Your task to perform on an android device: snooze an email in the gmail app Image 0: 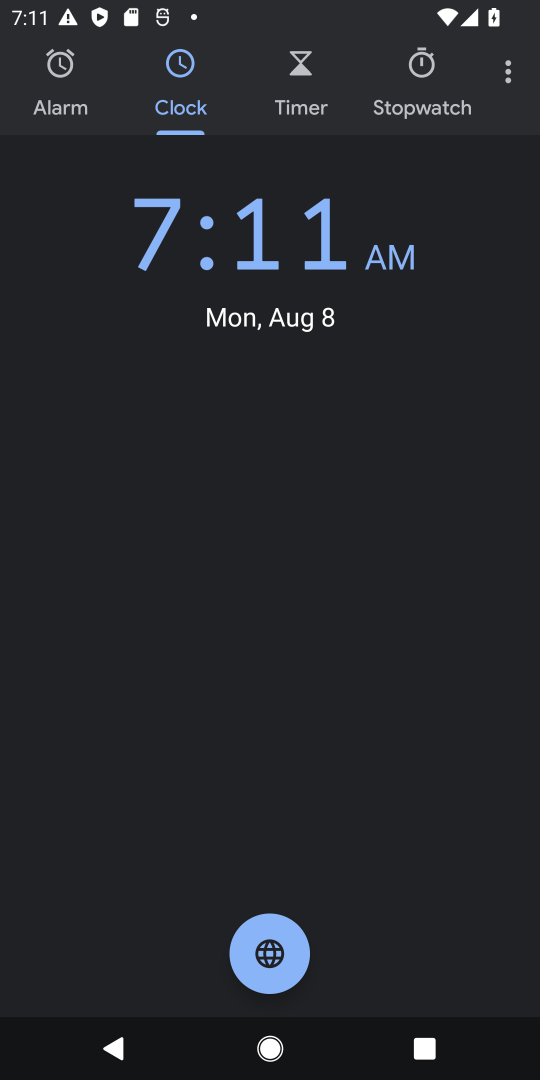
Step 0: press home button
Your task to perform on an android device: snooze an email in the gmail app Image 1: 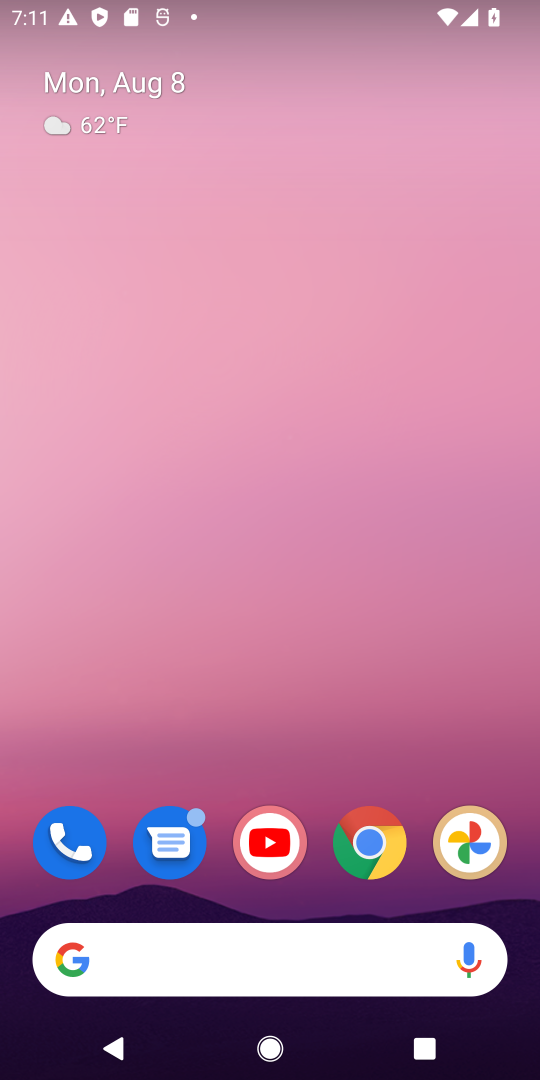
Step 1: drag from (315, 536) to (199, 6)
Your task to perform on an android device: snooze an email in the gmail app Image 2: 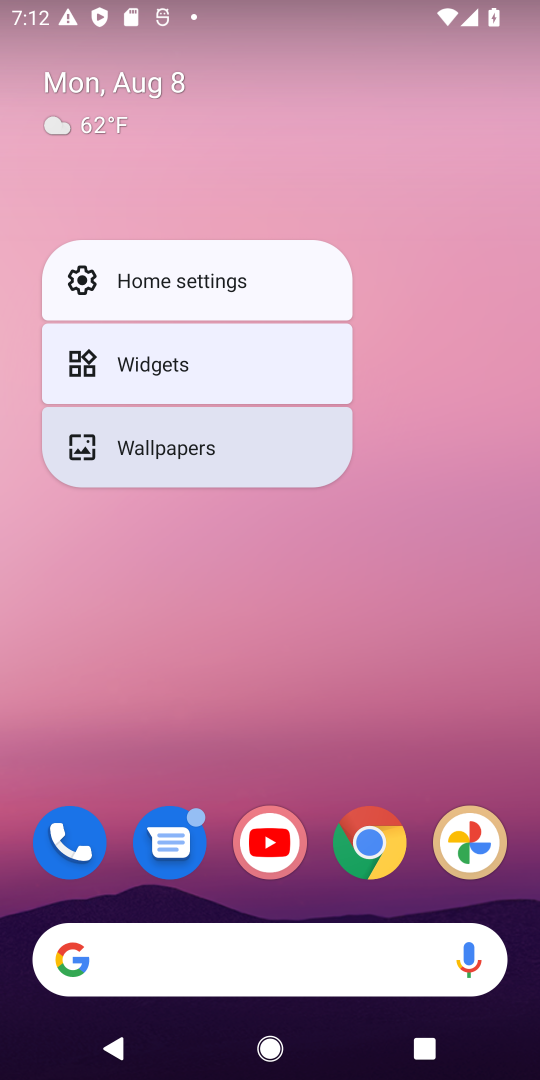
Step 2: click (338, 574)
Your task to perform on an android device: snooze an email in the gmail app Image 3: 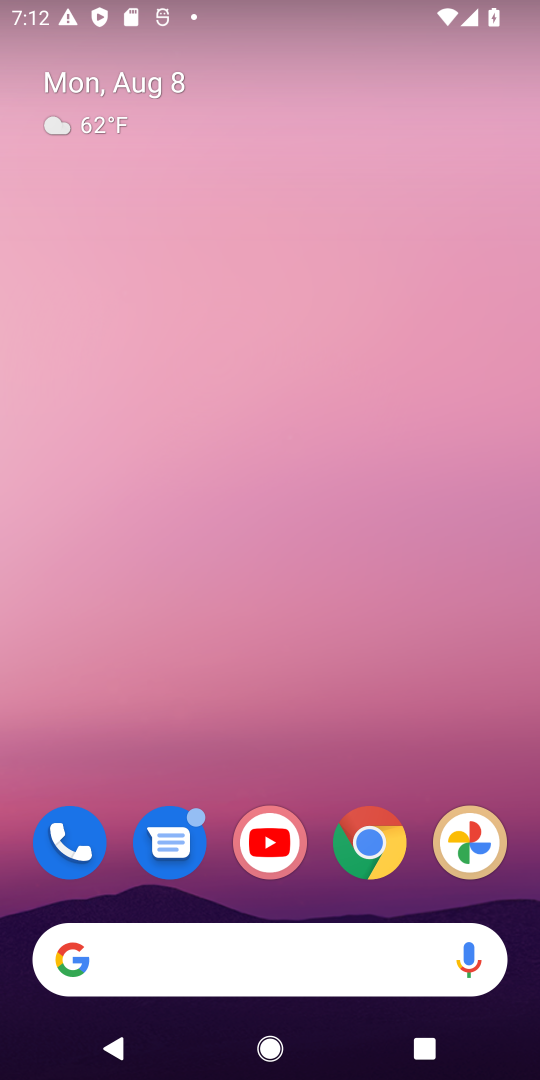
Step 3: click (338, 574)
Your task to perform on an android device: snooze an email in the gmail app Image 4: 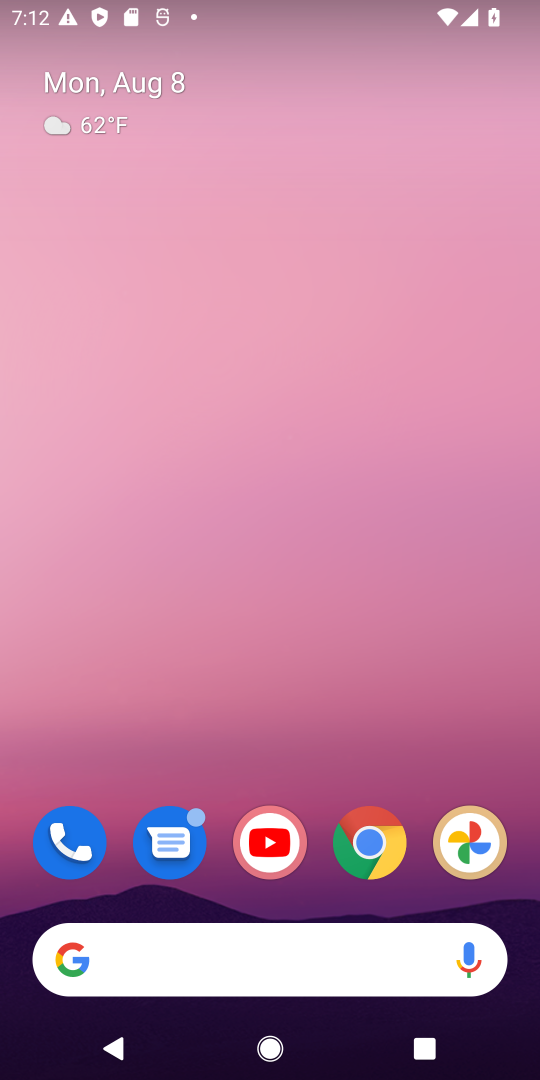
Step 4: drag from (349, 701) to (220, 1)
Your task to perform on an android device: snooze an email in the gmail app Image 5: 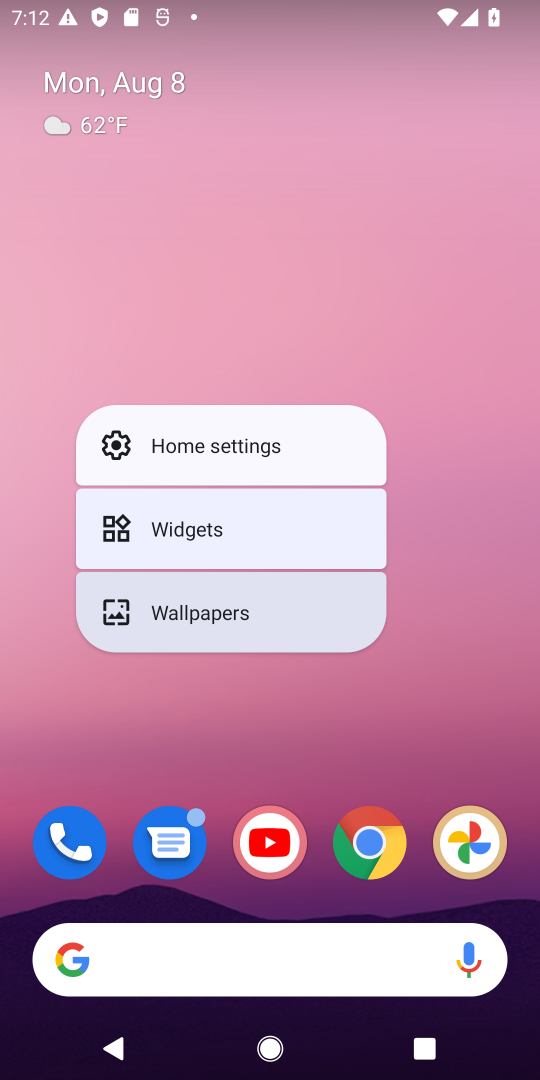
Step 5: drag from (334, 716) to (335, 0)
Your task to perform on an android device: snooze an email in the gmail app Image 6: 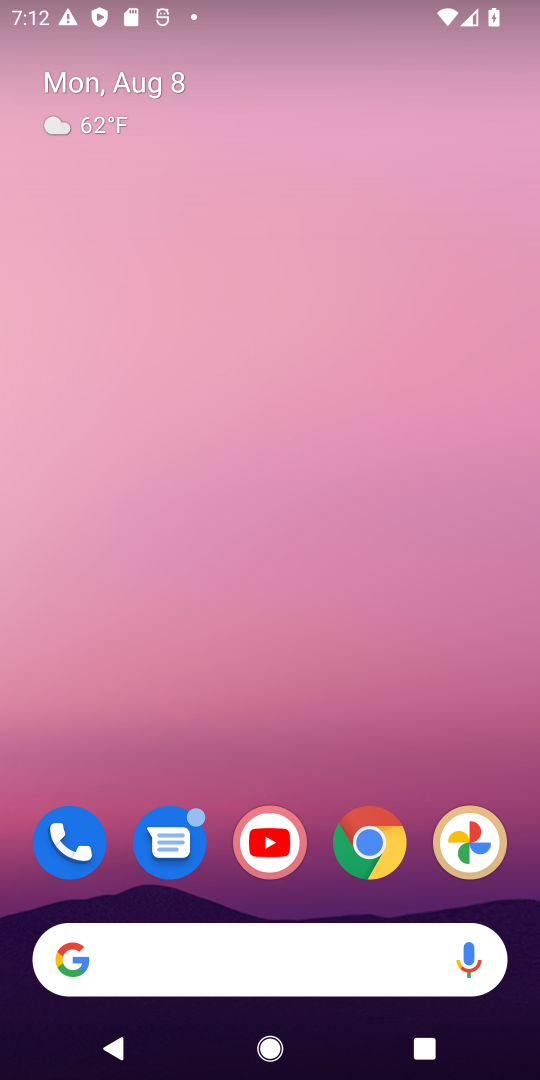
Step 6: drag from (308, 725) to (384, 14)
Your task to perform on an android device: snooze an email in the gmail app Image 7: 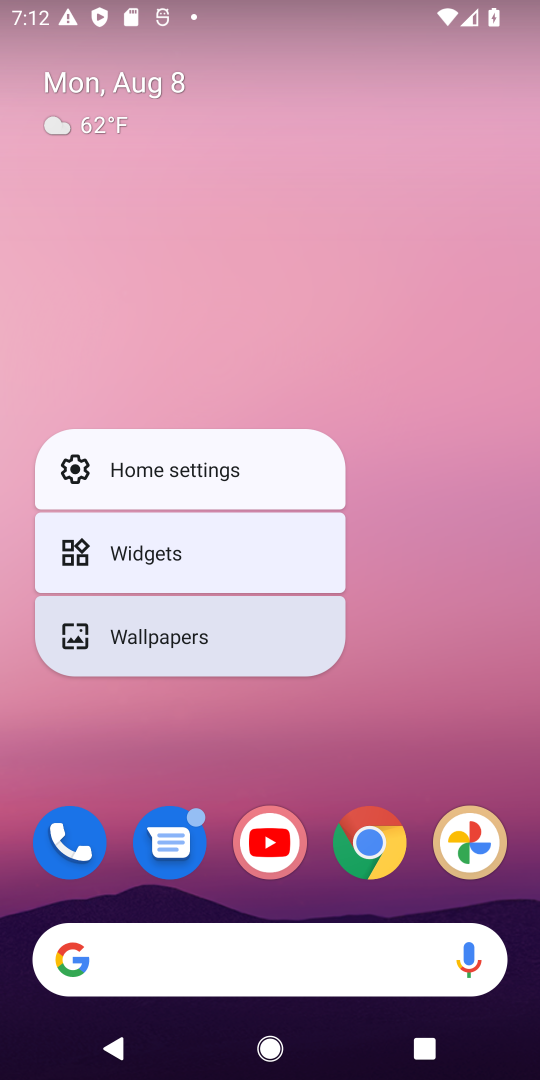
Step 7: drag from (387, 732) to (406, 66)
Your task to perform on an android device: snooze an email in the gmail app Image 8: 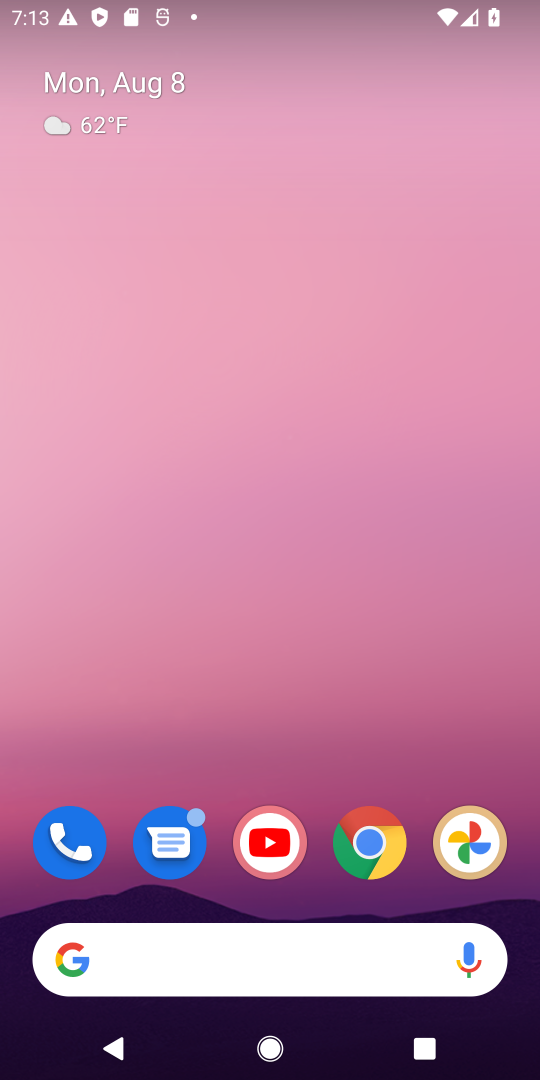
Step 8: drag from (405, 484) to (416, 1)
Your task to perform on an android device: snooze an email in the gmail app Image 9: 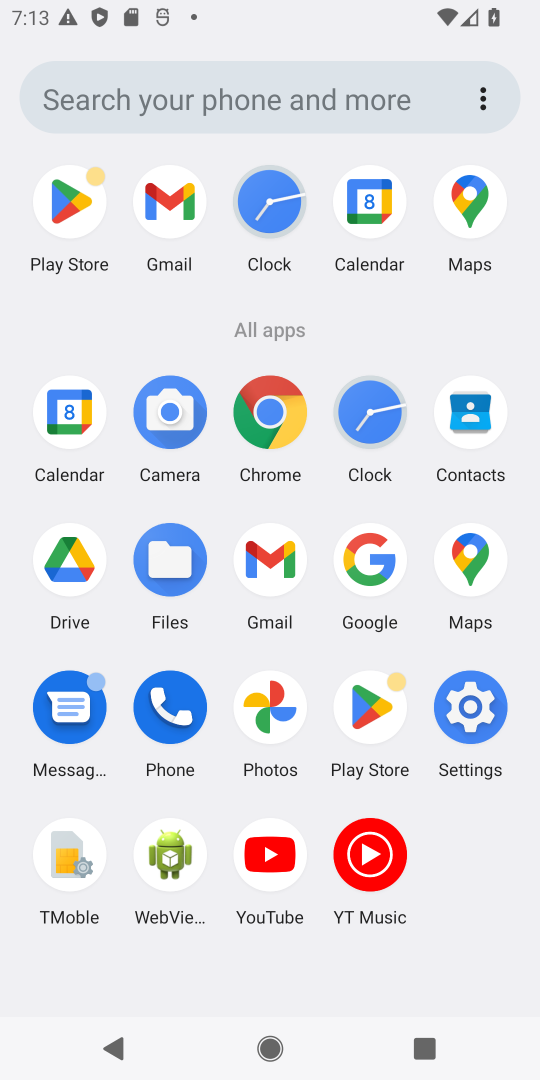
Step 9: click (265, 564)
Your task to perform on an android device: snooze an email in the gmail app Image 10: 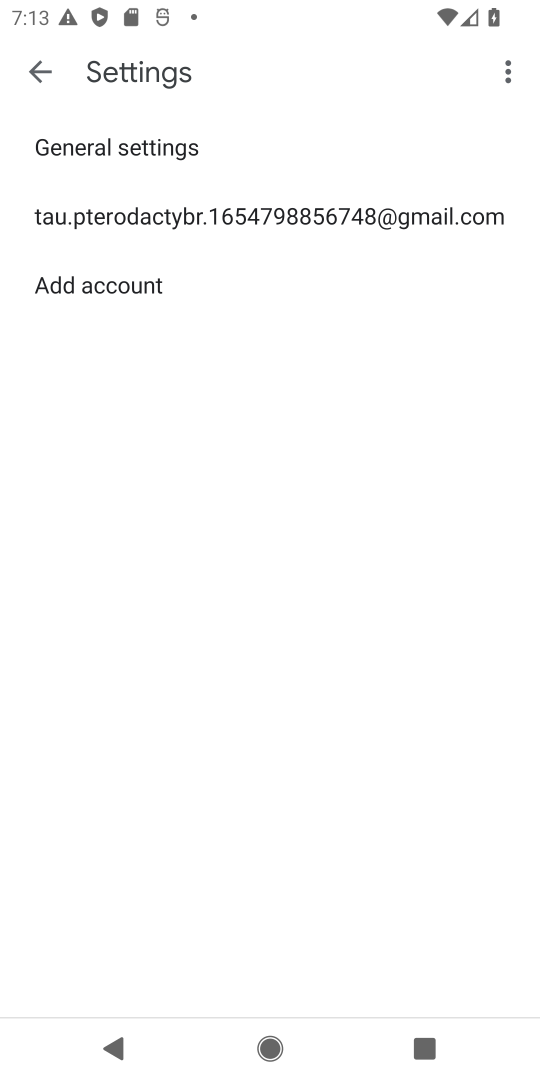
Step 10: click (39, 66)
Your task to perform on an android device: snooze an email in the gmail app Image 11: 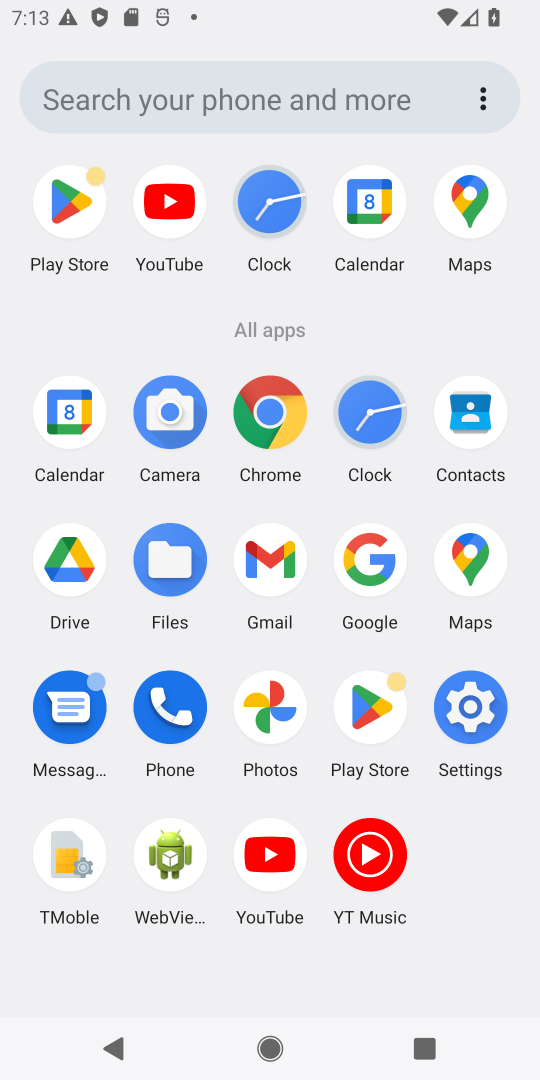
Step 11: click (261, 569)
Your task to perform on an android device: snooze an email in the gmail app Image 12: 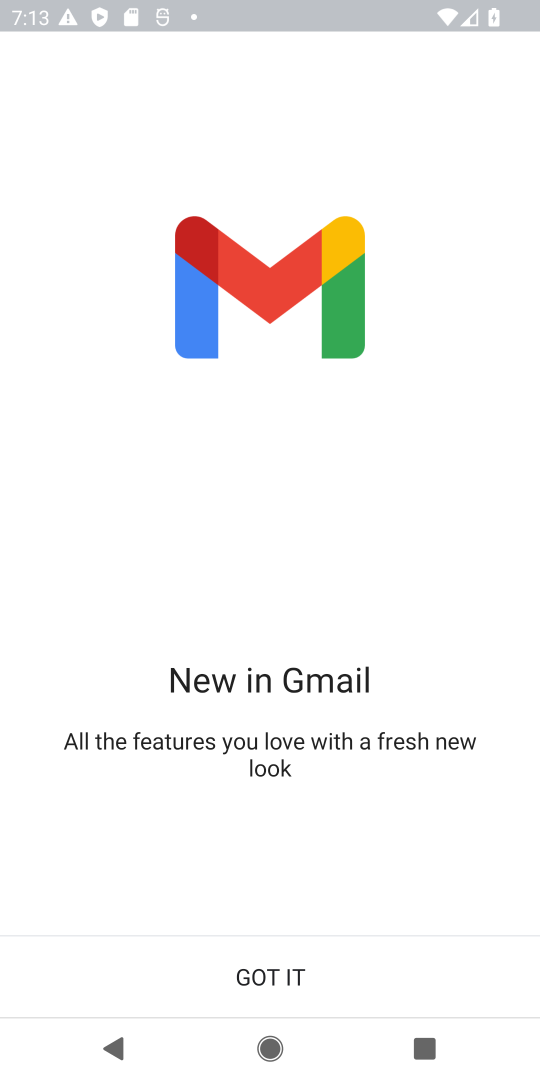
Step 12: click (297, 976)
Your task to perform on an android device: snooze an email in the gmail app Image 13: 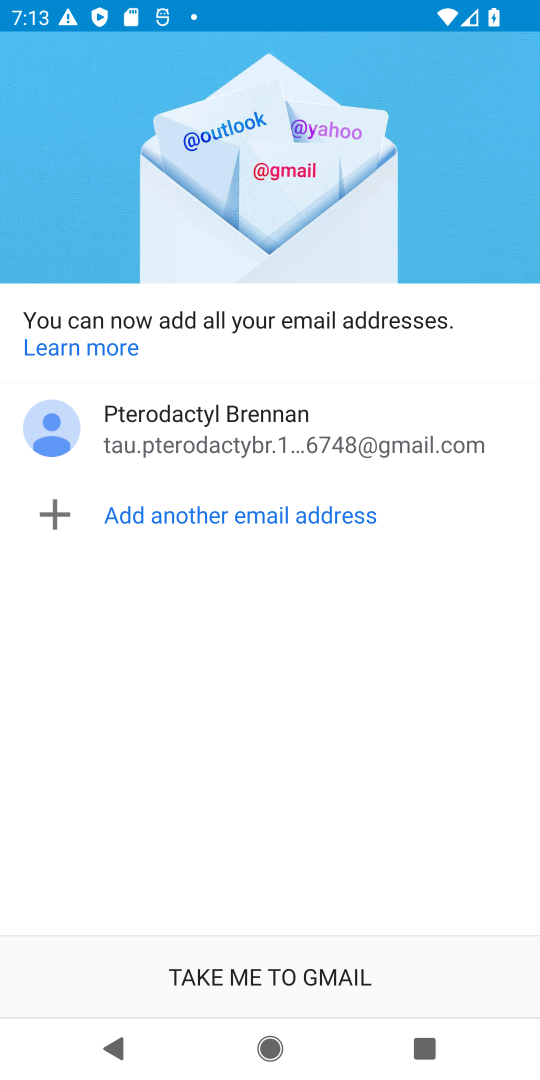
Step 13: click (286, 977)
Your task to perform on an android device: snooze an email in the gmail app Image 14: 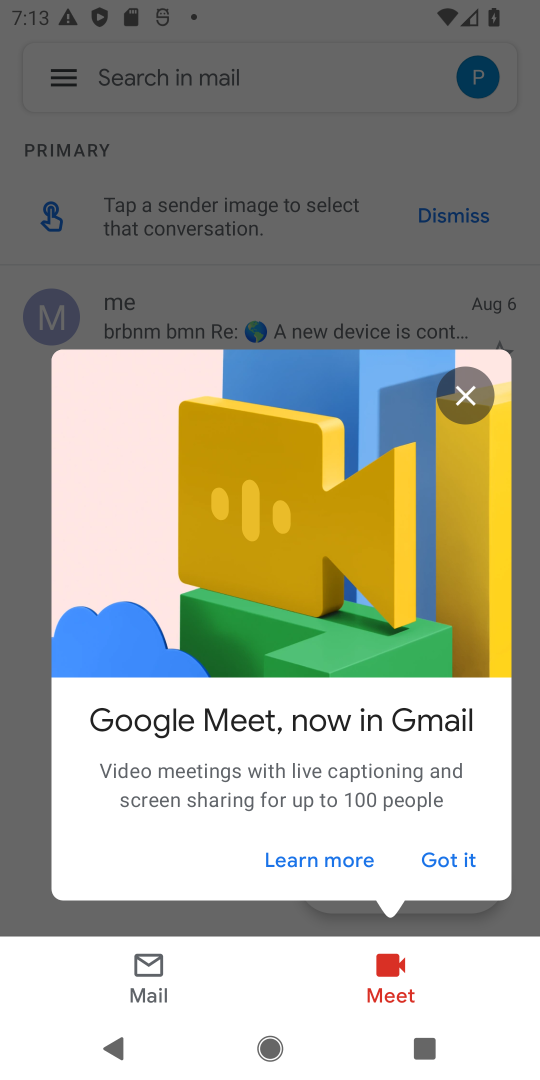
Step 14: click (436, 855)
Your task to perform on an android device: snooze an email in the gmail app Image 15: 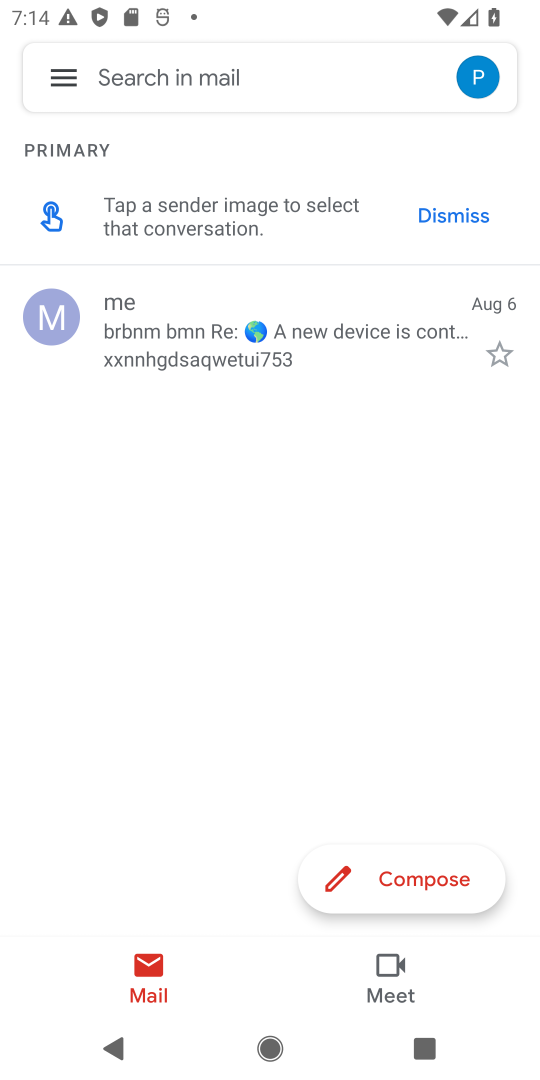
Step 15: click (235, 330)
Your task to perform on an android device: snooze an email in the gmail app Image 16: 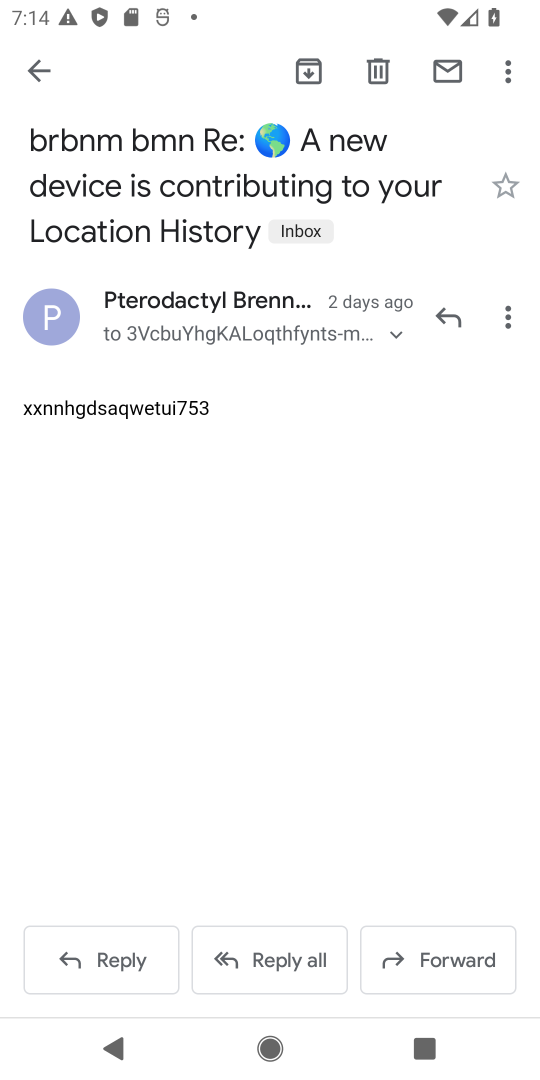
Step 16: click (510, 76)
Your task to perform on an android device: snooze an email in the gmail app Image 17: 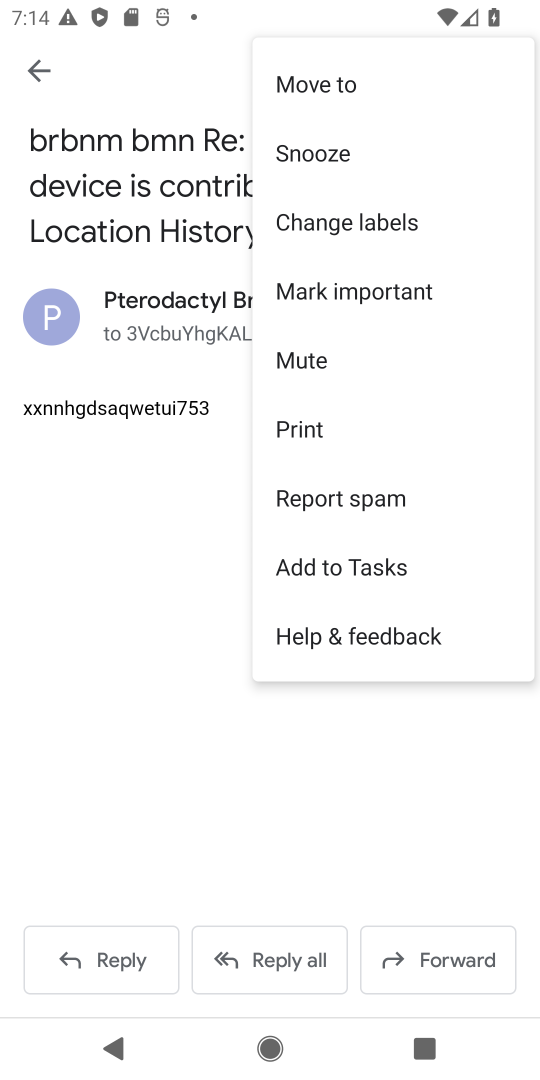
Step 17: click (393, 152)
Your task to perform on an android device: snooze an email in the gmail app Image 18: 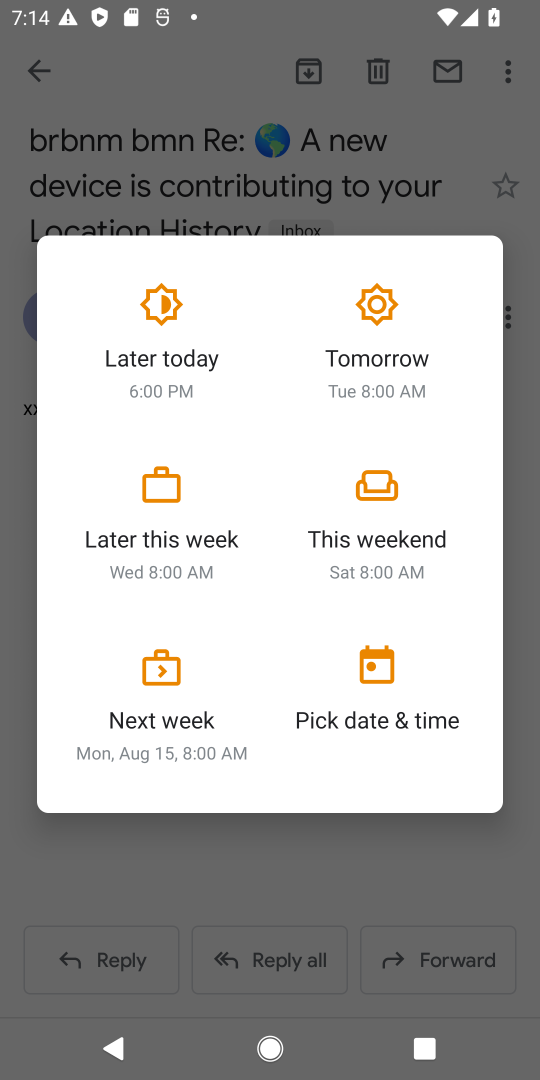
Step 18: click (381, 326)
Your task to perform on an android device: snooze an email in the gmail app Image 19: 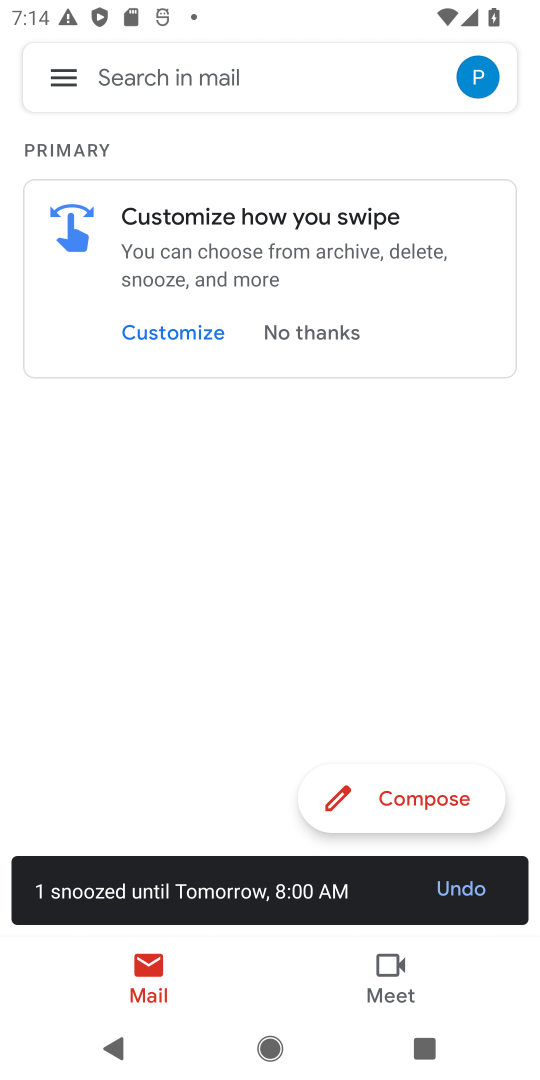
Step 19: task complete